Your task to perform on an android device: toggle javascript in the chrome app Image 0: 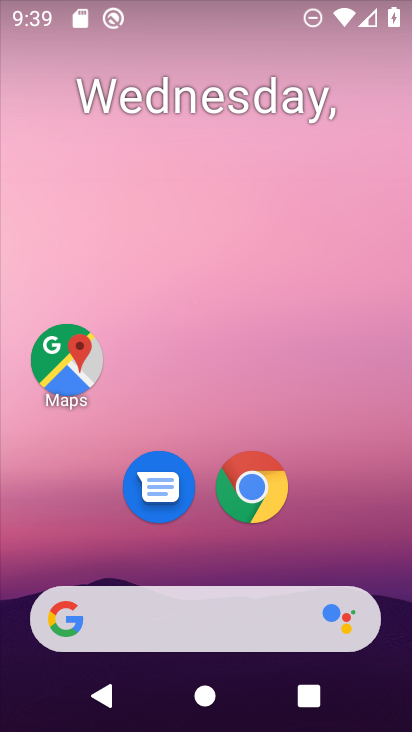
Step 0: drag from (272, 659) to (234, 327)
Your task to perform on an android device: toggle javascript in the chrome app Image 1: 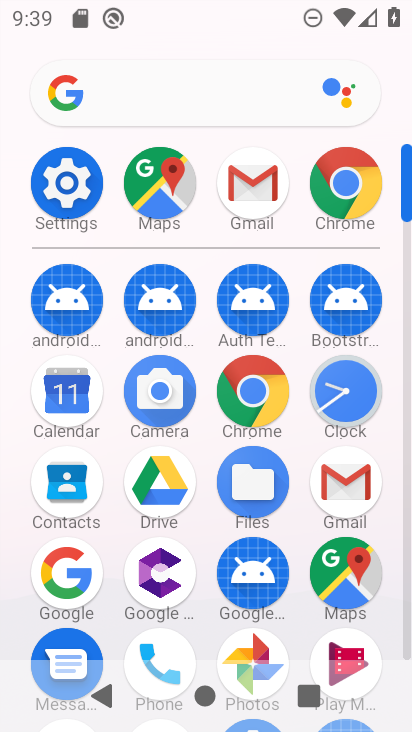
Step 1: click (351, 199)
Your task to perform on an android device: toggle javascript in the chrome app Image 2: 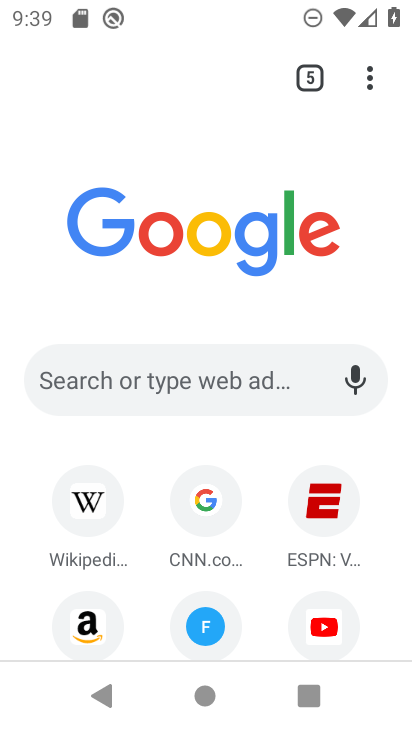
Step 2: click (362, 77)
Your task to perform on an android device: toggle javascript in the chrome app Image 3: 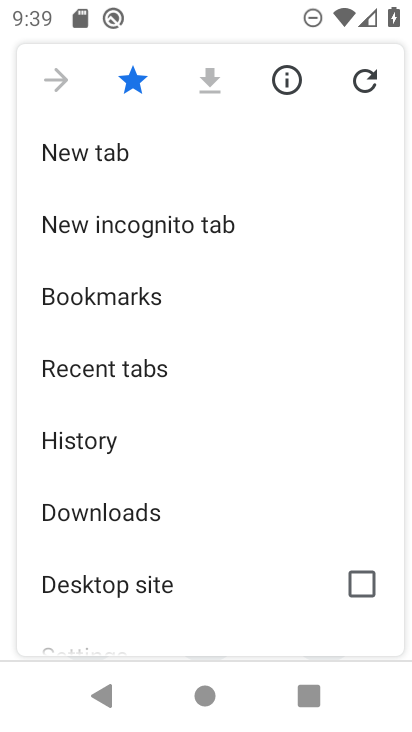
Step 3: drag from (199, 496) to (240, 329)
Your task to perform on an android device: toggle javascript in the chrome app Image 4: 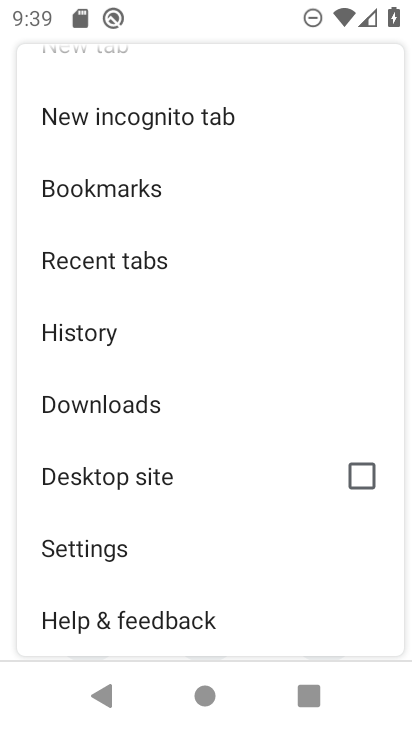
Step 4: click (115, 536)
Your task to perform on an android device: toggle javascript in the chrome app Image 5: 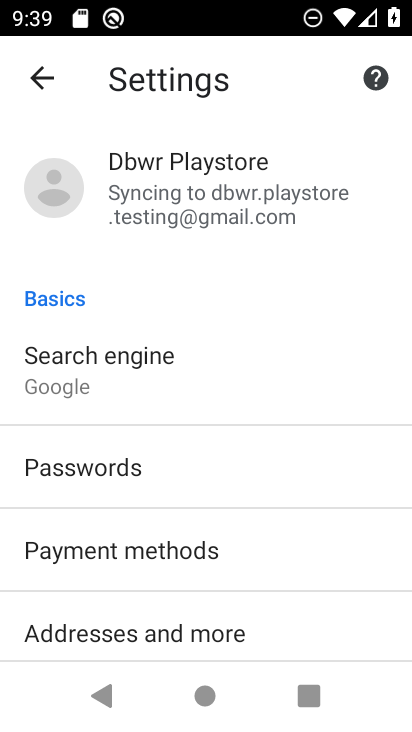
Step 5: drag from (257, 573) to (335, 366)
Your task to perform on an android device: toggle javascript in the chrome app Image 6: 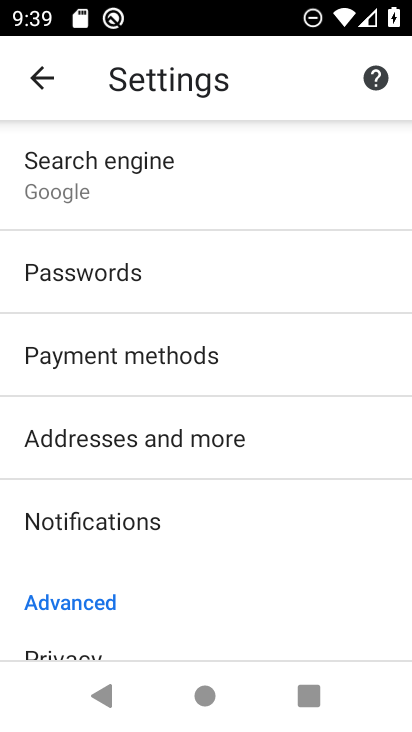
Step 6: drag from (269, 535) to (299, 344)
Your task to perform on an android device: toggle javascript in the chrome app Image 7: 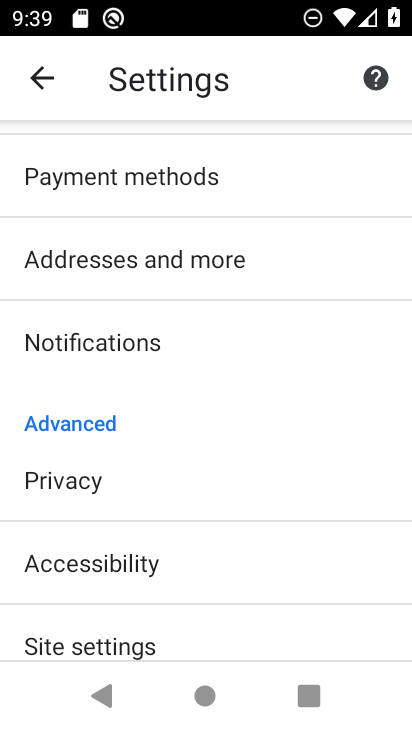
Step 7: click (113, 631)
Your task to perform on an android device: toggle javascript in the chrome app Image 8: 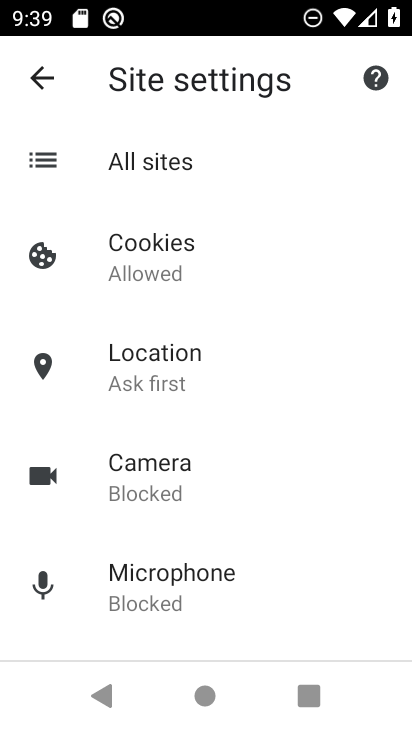
Step 8: drag from (165, 564) to (211, 359)
Your task to perform on an android device: toggle javascript in the chrome app Image 9: 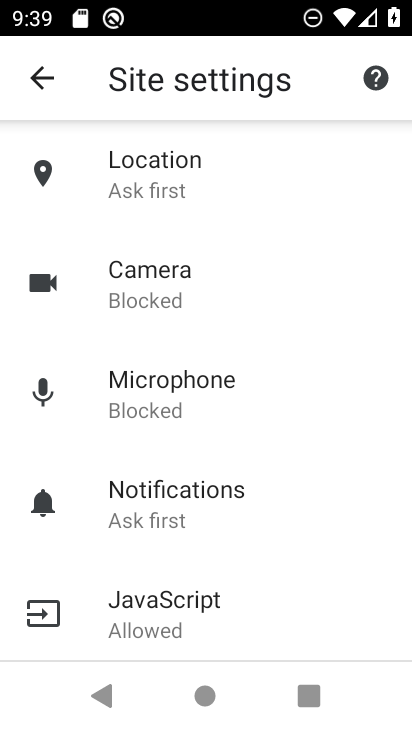
Step 9: click (166, 589)
Your task to perform on an android device: toggle javascript in the chrome app Image 10: 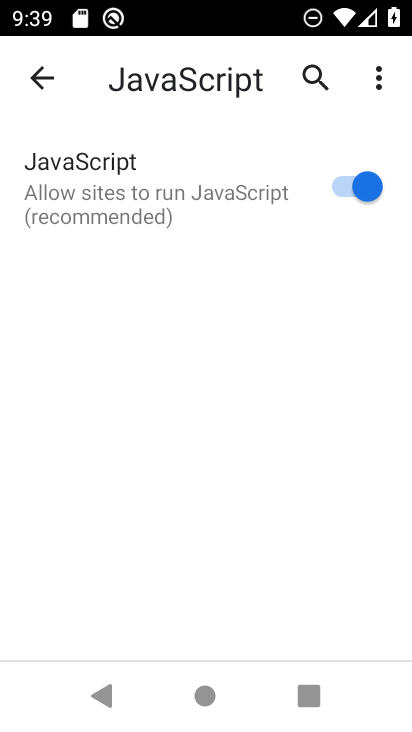
Step 10: task complete